Your task to perform on an android device: toggle priority inbox in the gmail app Image 0: 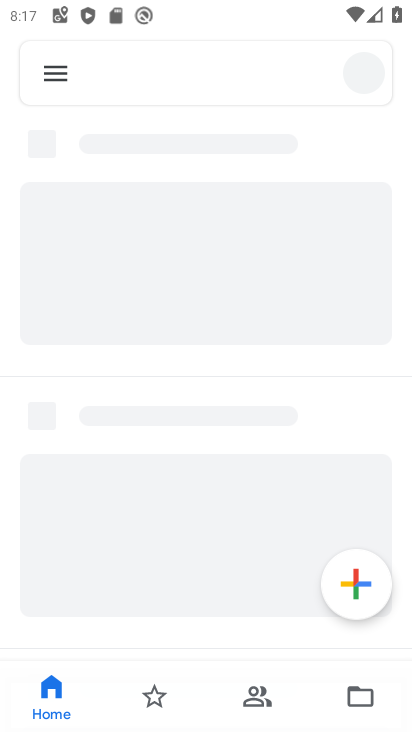
Step 0: drag from (268, 514) to (249, 254)
Your task to perform on an android device: toggle priority inbox in the gmail app Image 1: 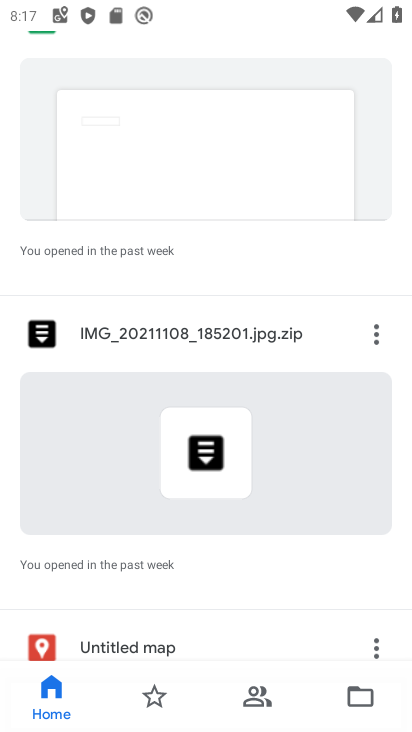
Step 1: press home button
Your task to perform on an android device: toggle priority inbox in the gmail app Image 2: 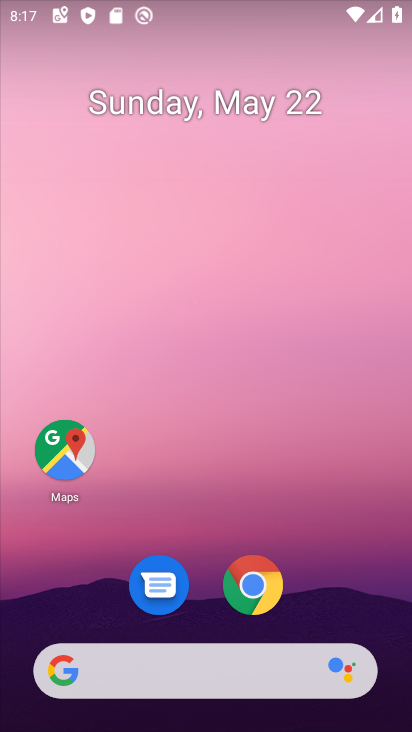
Step 2: drag from (197, 515) to (205, 42)
Your task to perform on an android device: toggle priority inbox in the gmail app Image 3: 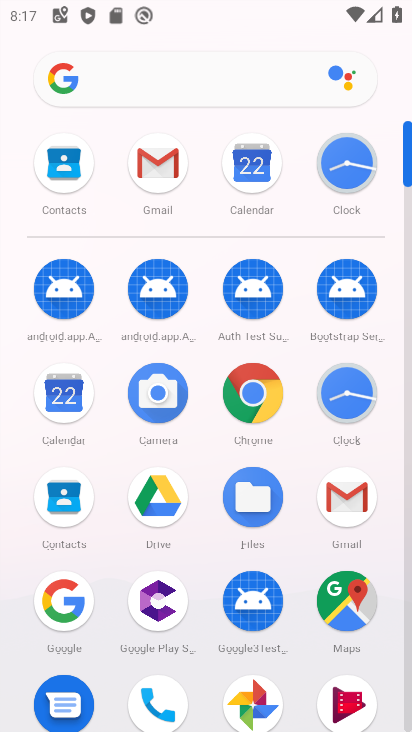
Step 3: click (154, 148)
Your task to perform on an android device: toggle priority inbox in the gmail app Image 4: 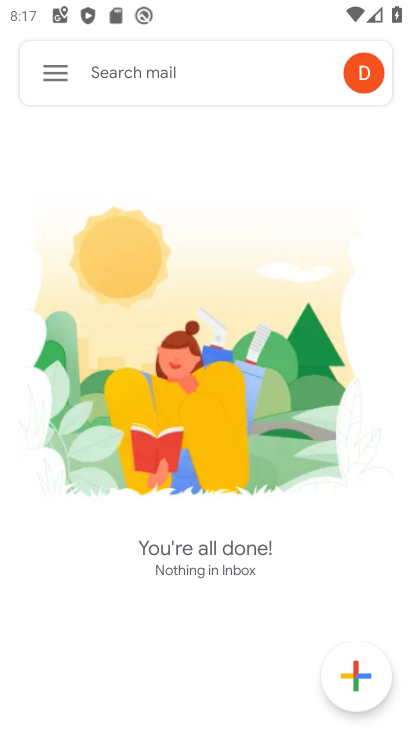
Step 4: click (60, 69)
Your task to perform on an android device: toggle priority inbox in the gmail app Image 5: 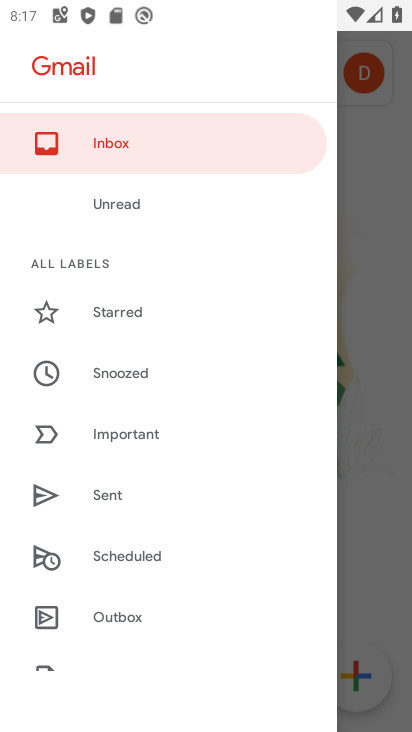
Step 5: drag from (164, 576) to (220, 86)
Your task to perform on an android device: toggle priority inbox in the gmail app Image 6: 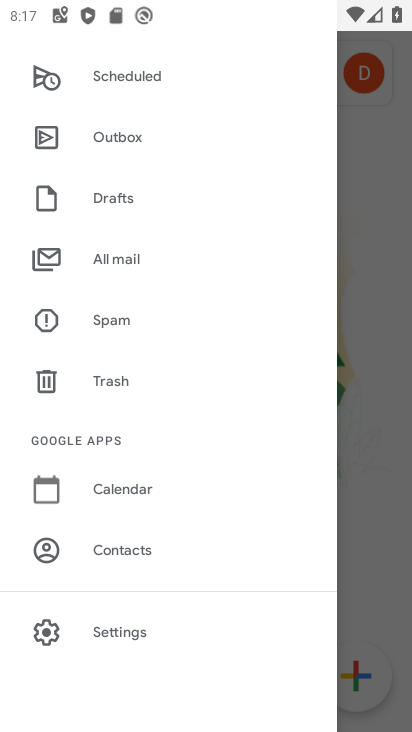
Step 6: click (123, 625)
Your task to perform on an android device: toggle priority inbox in the gmail app Image 7: 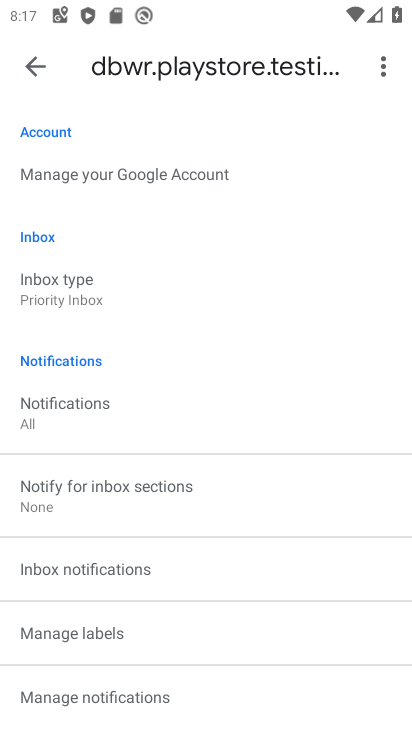
Step 7: click (88, 291)
Your task to perform on an android device: toggle priority inbox in the gmail app Image 8: 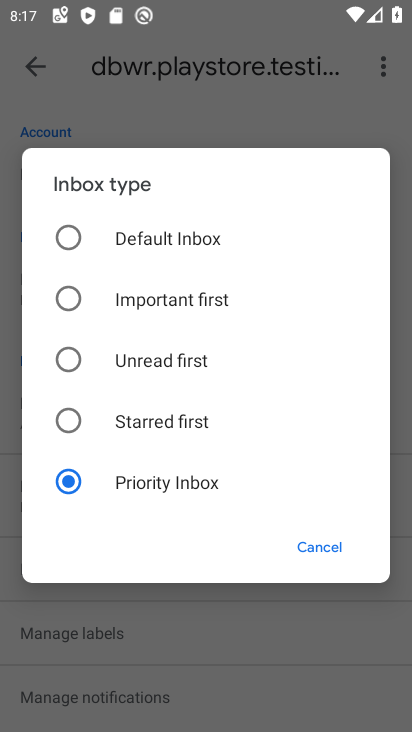
Step 8: click (73, 233)
Your task to perform on an android device: toggle priority inbox in the gmail app Image 9: 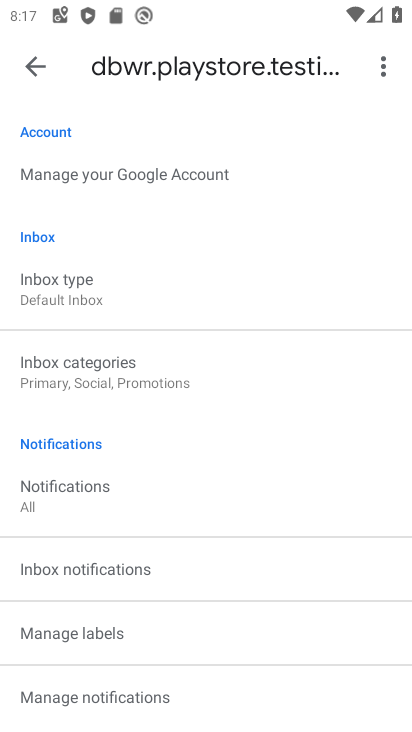
Step 9: task complete